Your task to perform on an android device: turn on translation in the chrome app Image 0: 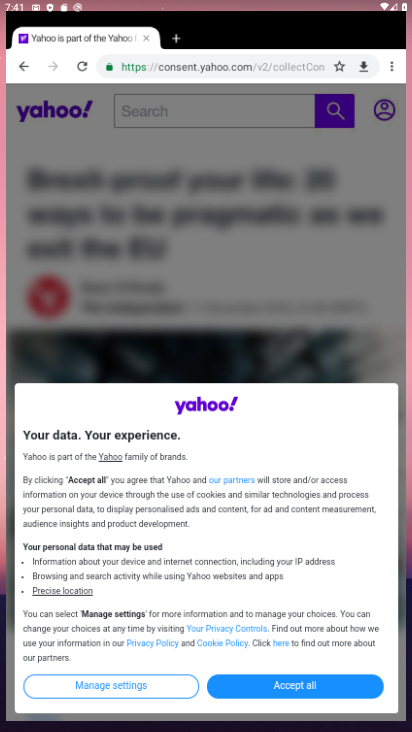
Step 0: drag from (238, 682) to (200, 115)
Your task to perform on an android device: turn on translation in the chrome app Image 1: 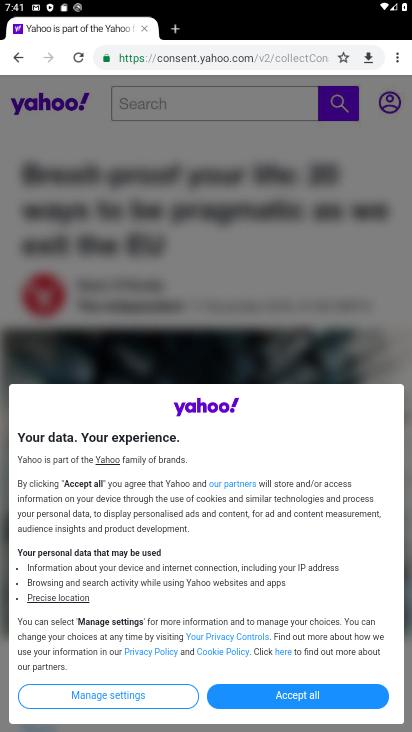
Step 1: press back button
Your task to perform on an android device: turn on translation in the chrome app Image 2: 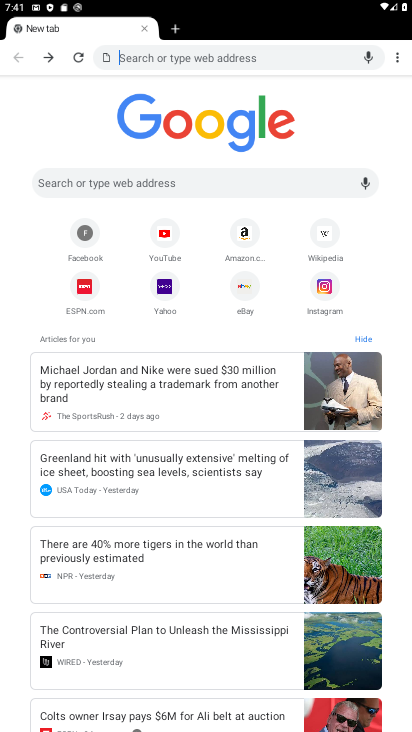
Step 2: drag from (395, 62) to (288, 265)
Your task to perform on an android device: turn on translation in the chrome app Image 3: 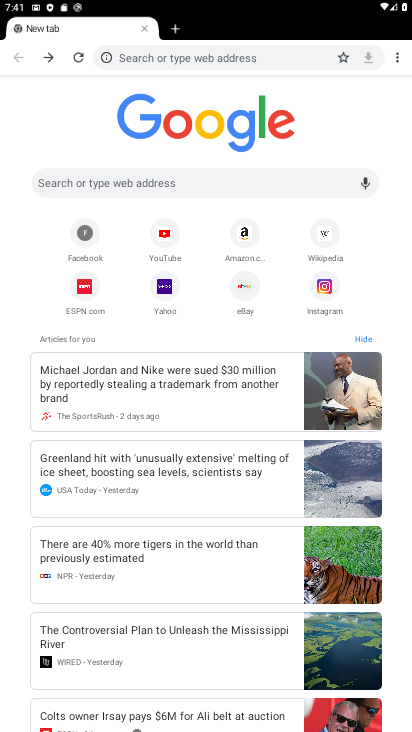
Step 3: click (287, 265)
Your task to perform on an android device: turn on translation in the chrome app Image 4: 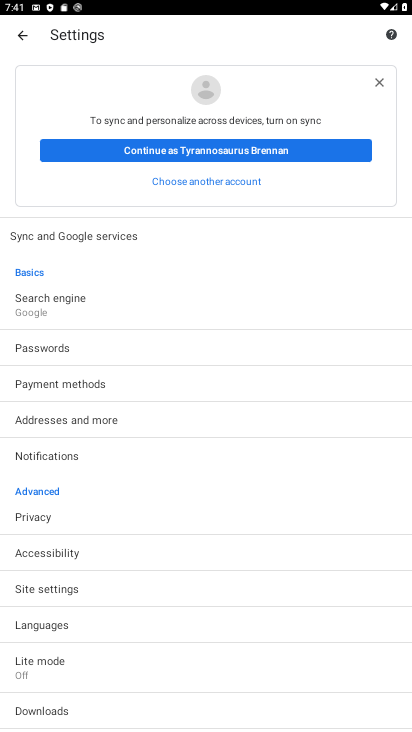
Step 4: drag from (116, 649) to (100, 417)
Your task to perform on an android device: turn on translation in the chrome app Image 5: 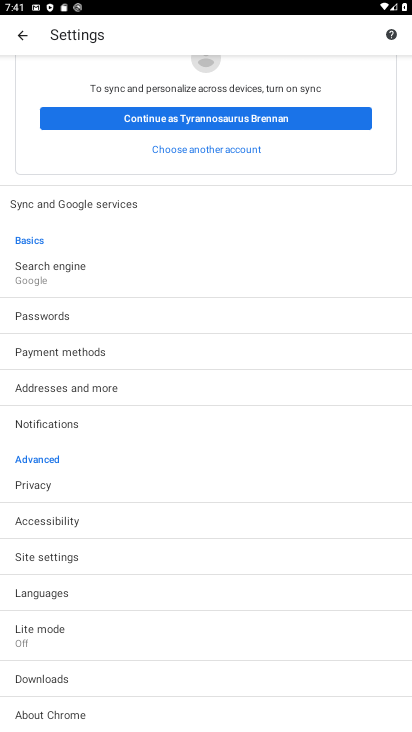
Step 5: click (90, 589)
Your task to perform on an android device: turn on translation in the chrome app Image 6: 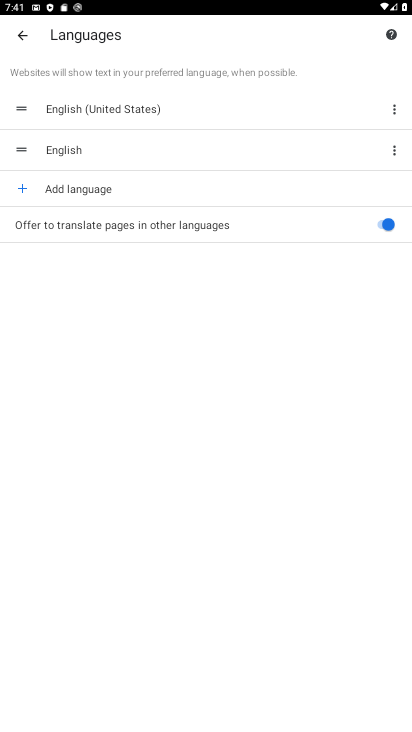
Step 6: click (391, 222)
Your task to perform on an android device: turn on translation in the chrome app Image 7: 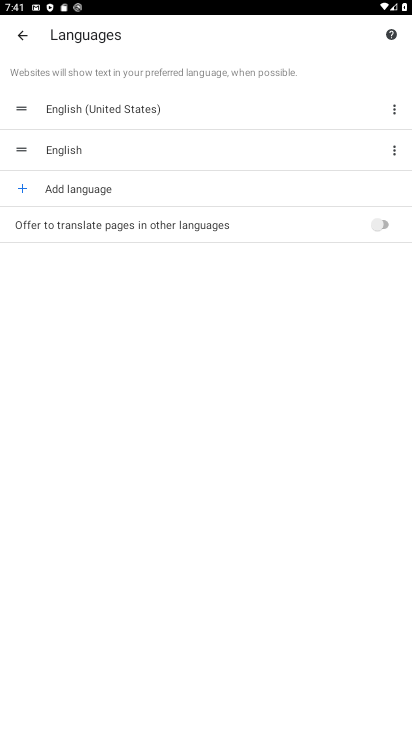
Step 7: click (377, 223)
Your task to perform on an android device: turn on translation in the chrome app Image 8: 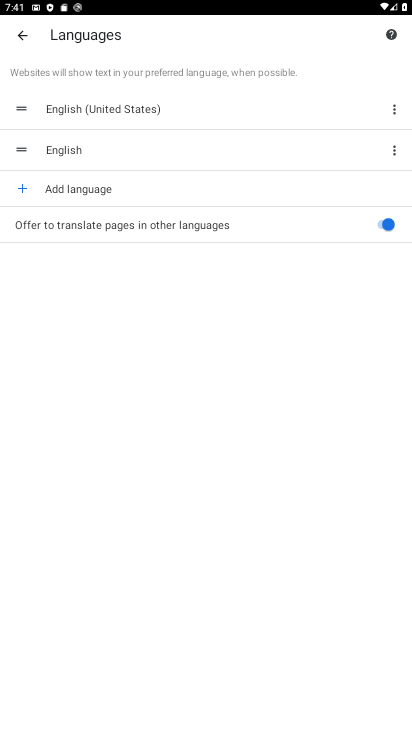
Step 8: task complete